Your task to perform on an android device: Open Youtube and go to the subscriptions tab Image 0: 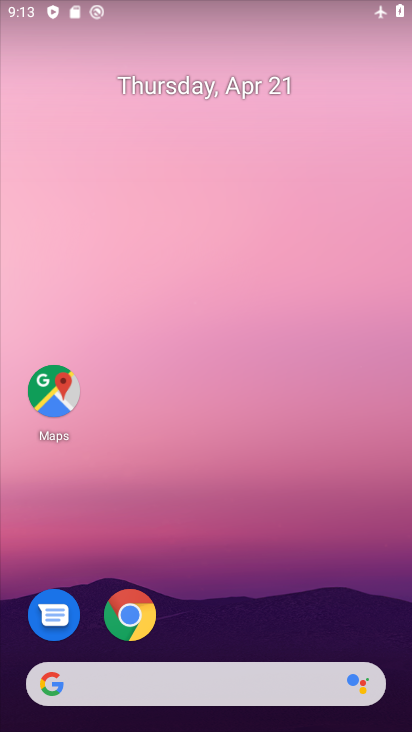
Step 0: drag from (201, 724) to (201, 185)
Your task to perform on an android device: Open Youtube and go to the subscriptions tab Image 1: 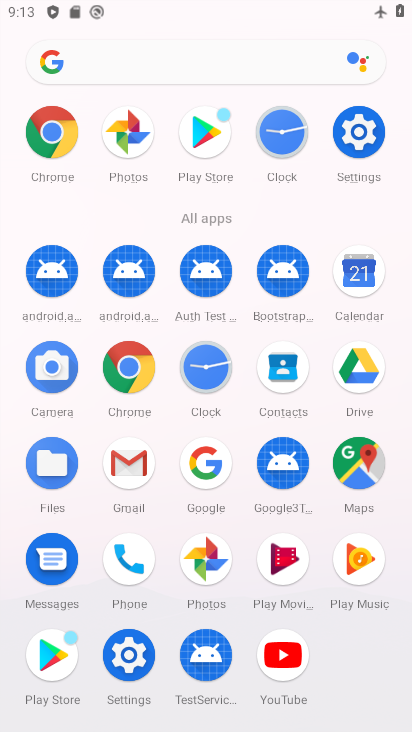
Step 1: click (287, 653)
Your task to perform on an android device: Open Youtube and go to the subscriptions tab Image 2: 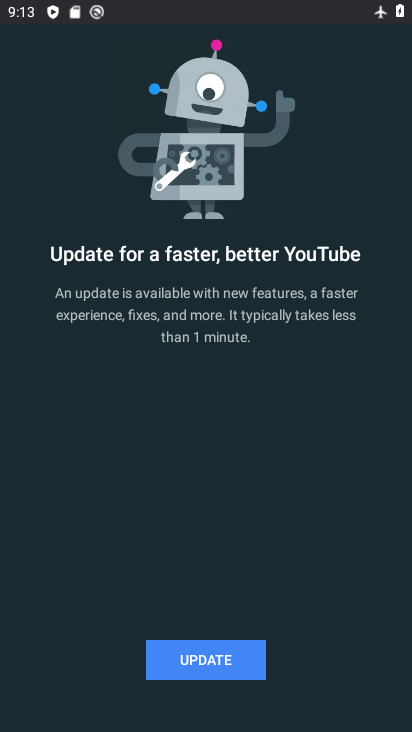
Step 2: click (222, 662)
Your task to perform on an android device: Open Youtube and go to the subscriptions tab Image 3: 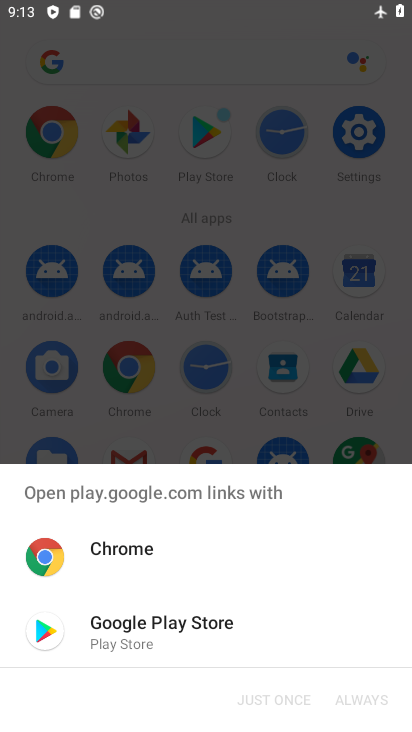
Step 3: click (148, 623)
Your task to perform on an android device: Open Youtube and go to the subscriptions tab Image 4: 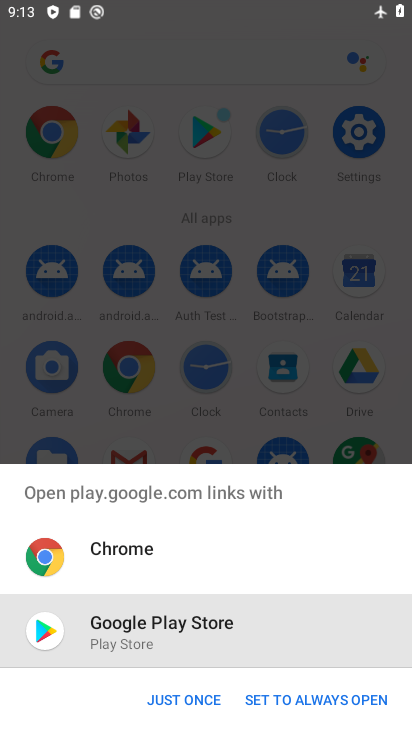
Step 4: click (186, 694)
Your task to perform on an android device: Open Youtube and go to the subscriptions tab Image 5: 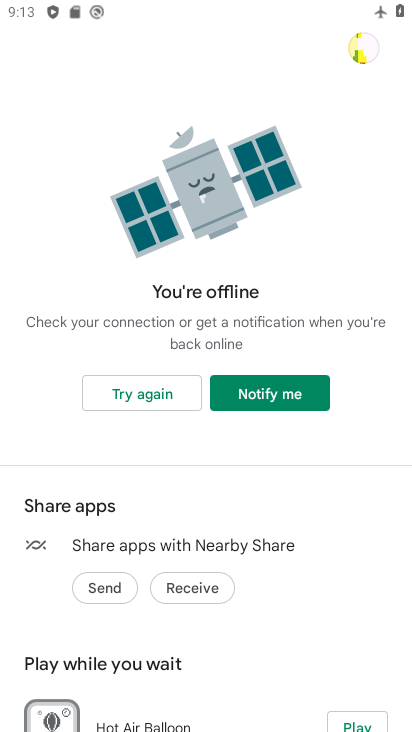
Step 5: task complete